Your task to perform on an android device: snooze an email in the gmail app Image 0: 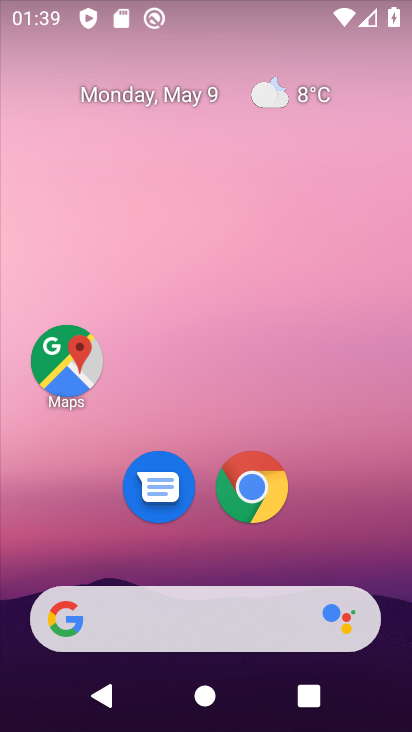
Step 0: drag from (314, 568) to (290, 52)
Your task to perform on an android device: snooze an email in the gmail app Image 1: 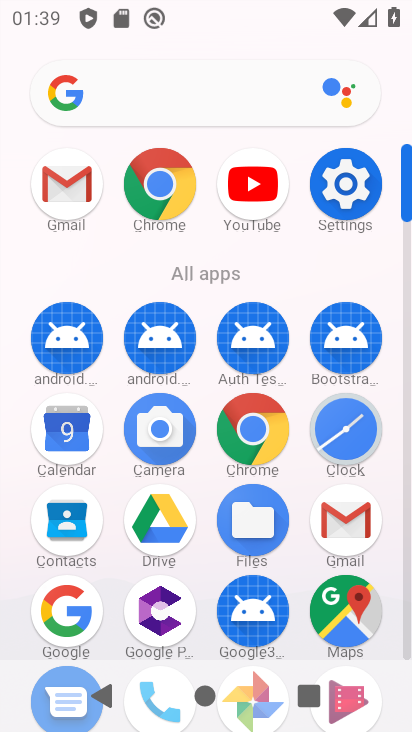
Step 1: click (336, 521)
Your task to perform on an android device: snooze an email in the gmail app Image 2: 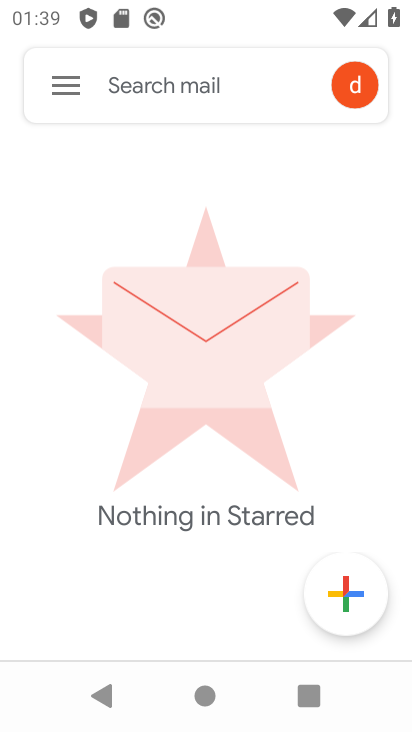
Step 2: click (83, 99)
Your task to perform on an android device: snooze an email in the gmail app Image 3: 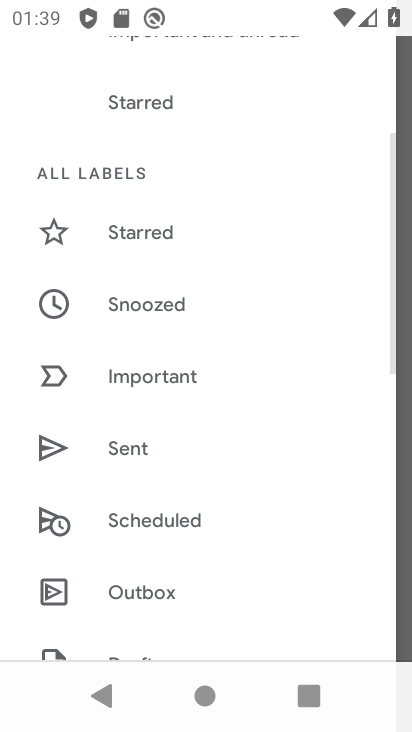
Step 3: drag from (142, 564) to (147, 159)
Your task to perform on an android device: snooze an email in the gmail app Image 4: 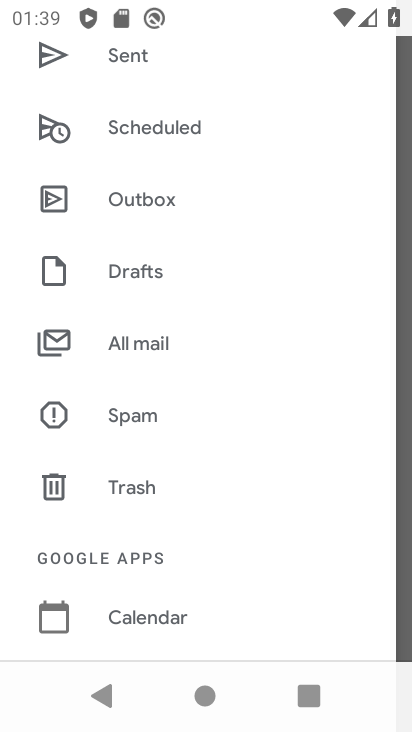
Step 4: click (146, 351)
Your task to perform on an android device: snooze an email in the gmail app Image 5: 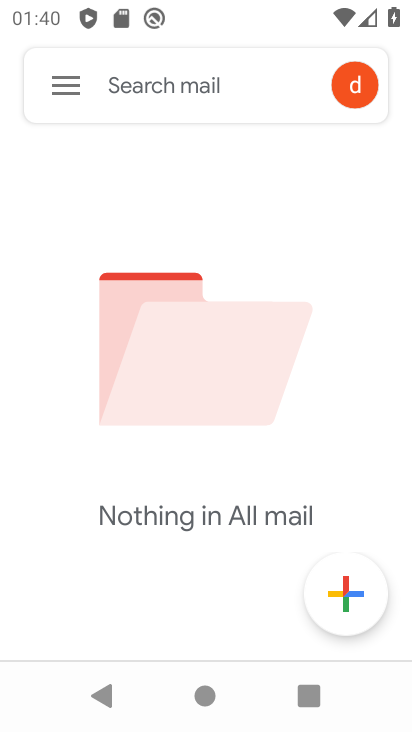
Step 5: task complete